Your task to perform on an android device: turn on the 12-hour format for clock Image 0: 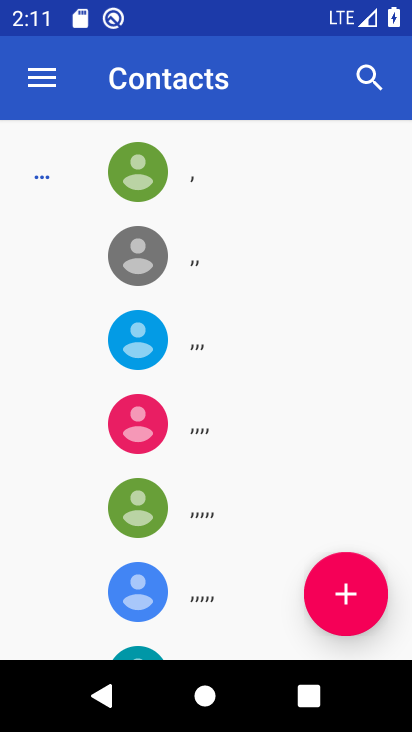
Step 0: press home button
Your task to perform on an android device: turn on the 12-hour format for clock Image 1: 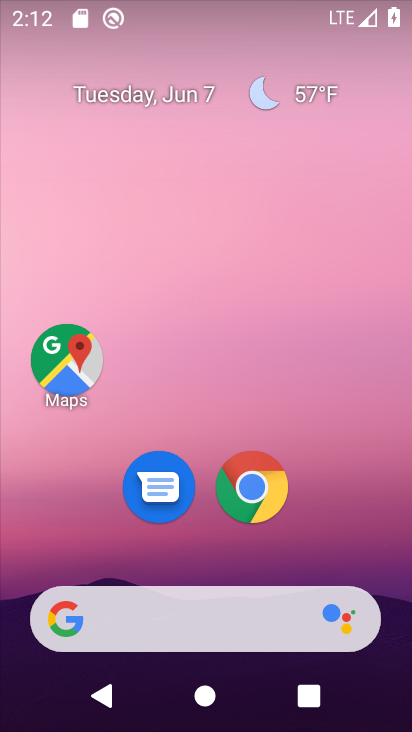
Step 1: drag from (220, 561) to (314, 21)
Your task to perform on an android device: turn on the 12-hour format for clock Image 2: 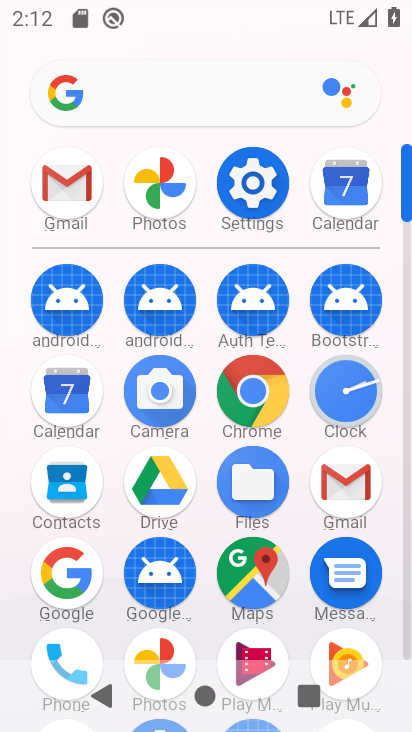
Step 2: click (339, 394)
Your task to perform on an android device: turn on the 12-hour format for clock Image 3: 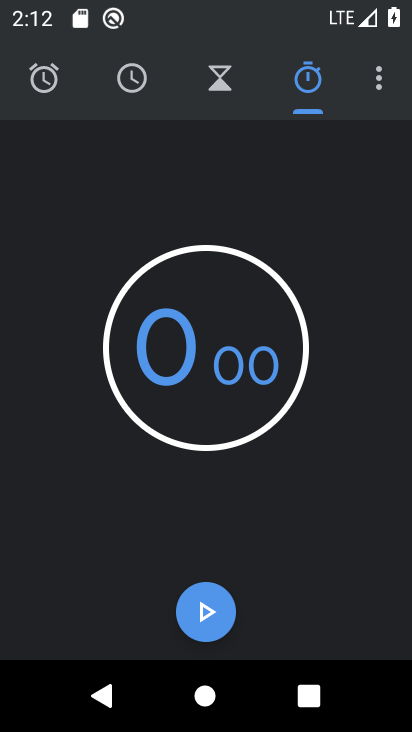
Step 3: click (376, 70)
Your task to perform on an android device: turn on the 12-hour format for clock Image 4: 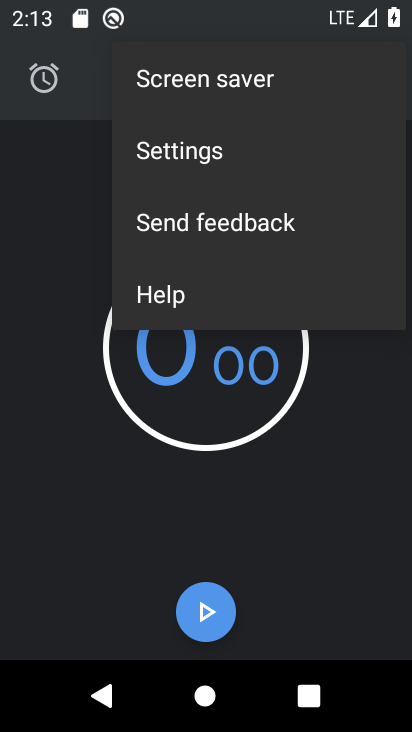
Step 4: click (198, 135)
Your task to perform on an android device: turn on the 12-hour format for clock Image 5: 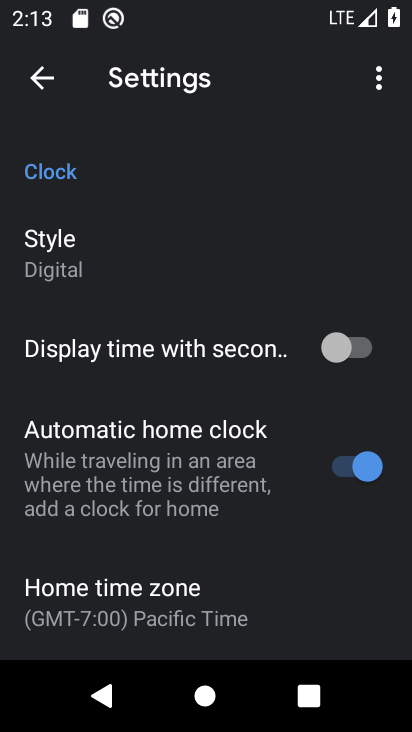
Step 5: drag from (158, 567) to (15, 431)
Your task to perform on an android device: turn on the 12-hour format for clock Image 6: 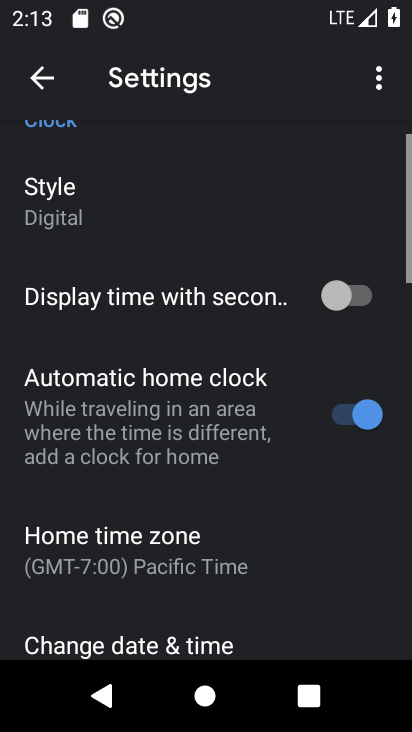
Step 6: drag from (140, 611) to (82, 128)
Your task to perform on an android device: turn on the 12-hour format for clock Image 7: 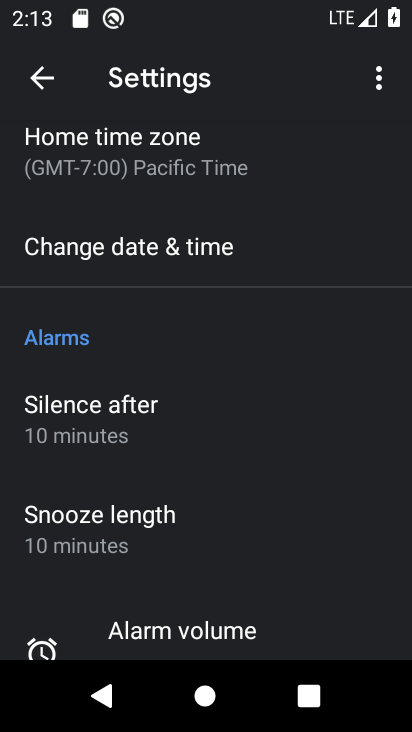
Step 7: click (187, 264)
Your task to perform on an android device: turn on the 12-hour format for clock Image 8: 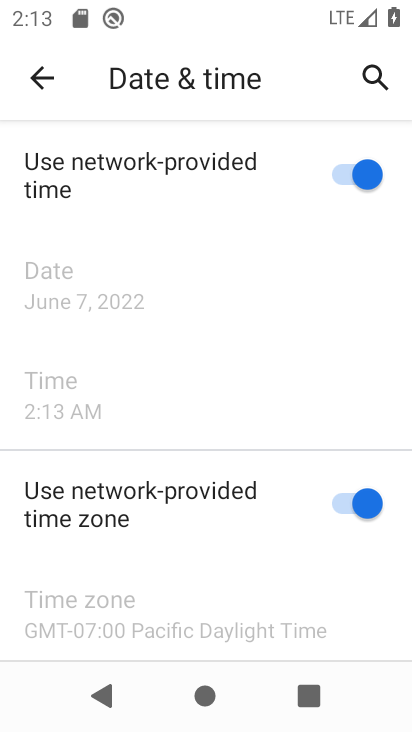
Step 8: task complete